Your task to perform on an android device: Search for Italian restaurants on Maps Image 0: 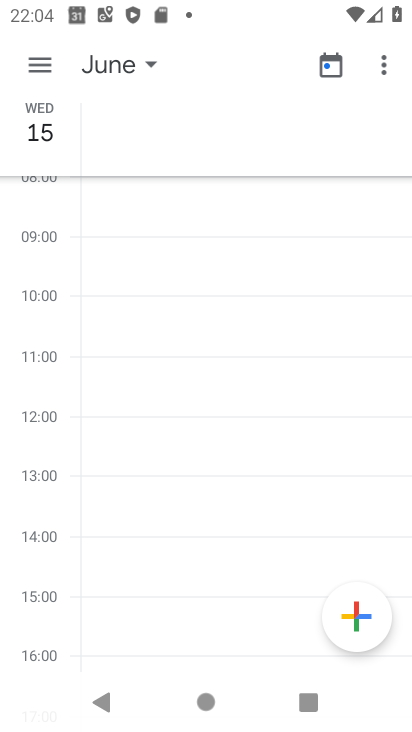
Step 0: click (215, 699)
Your task to perform on an android device: Search for Italian restaurants on Maps Image 1: 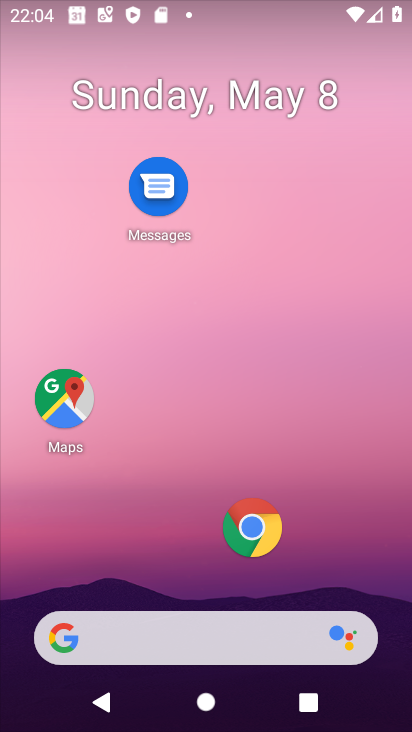
Step 1: click (73, 406)
Your task to perform on an android device: Search for Italian restaurants on Maps Image 2: 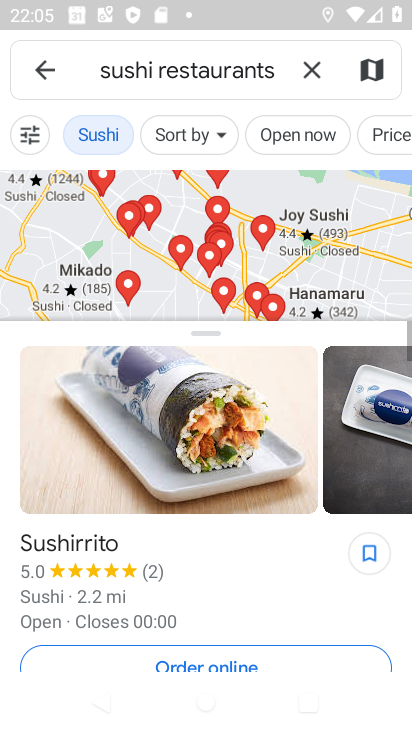
Step 2: click (314, 63)
Your task to perform on an android device: Search for Italian restaurants on Maps Image 3: 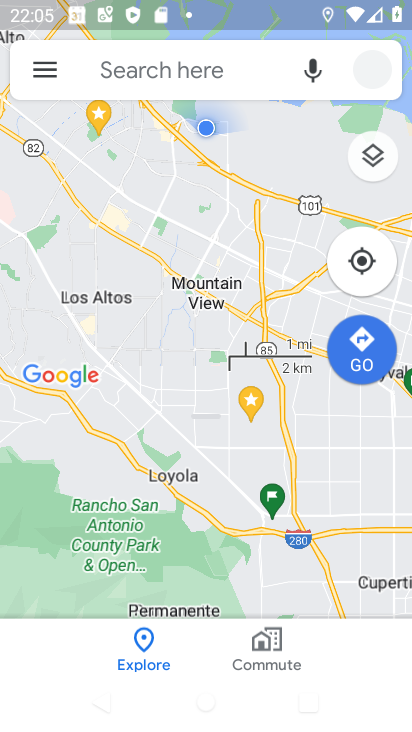
Step 3: click (178, 68)
Your task to perform on an android device: Search for Italian restaurants on Maps Image 4: 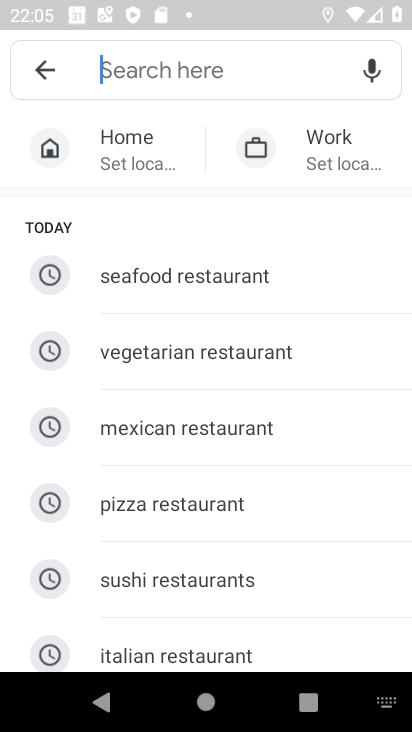
Step 4: drag from (164, 587) to (199, 374)
Your task to perform on an android device: Search for Italian restaurants on Maps Image 5: 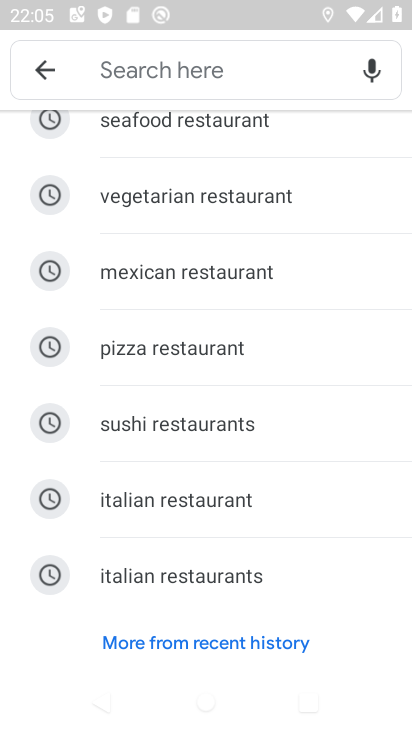
Step 5: click (157, 510)
Your task to perform on an android device: Search for Italian restaurants on Maps Image 6: 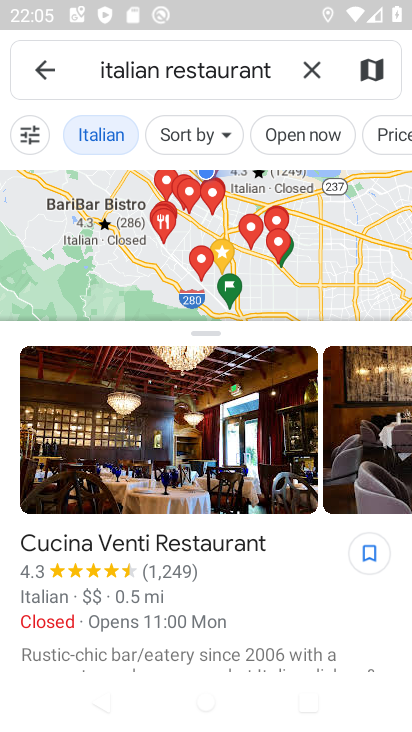
Step 6: task complete